Your task to perform on an android device: Open network settings Image 0: 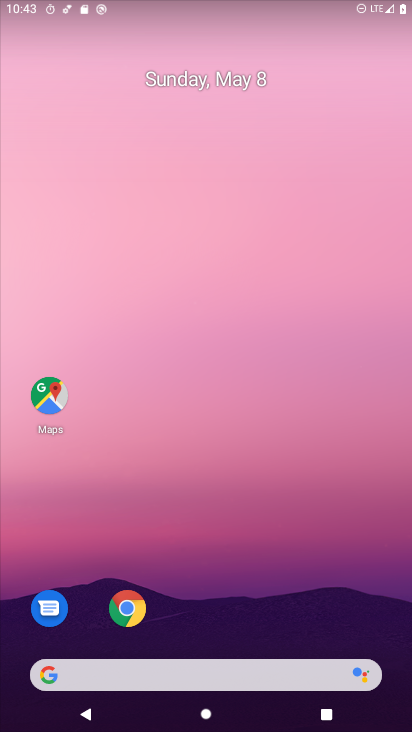
Step 0: drag from (176, 626) to (253, 157)
Your task to perform on an android device: Open network settings Image 1: 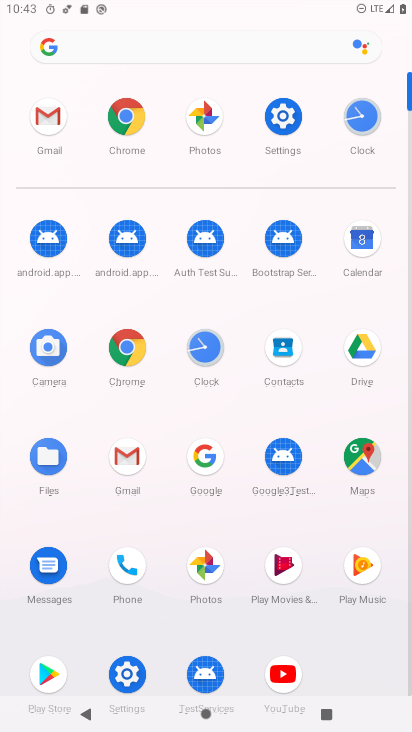
Step 1: click (273, 125)
Your task to perform on an android device: Open network settings Image 2: 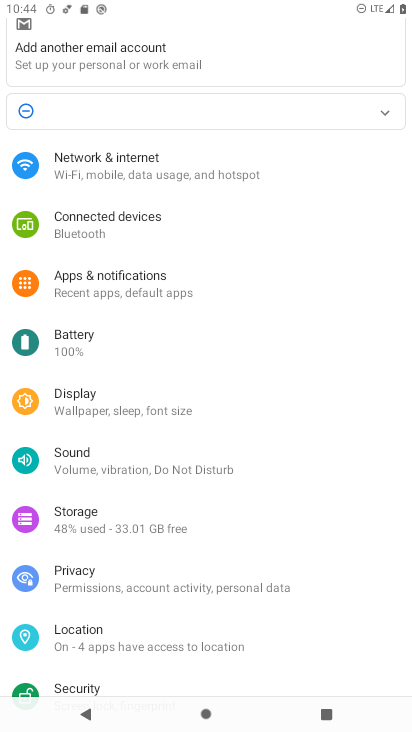
Step 2: click (162, 181)
Your task to perform on an android device: Open network settings Image 3: 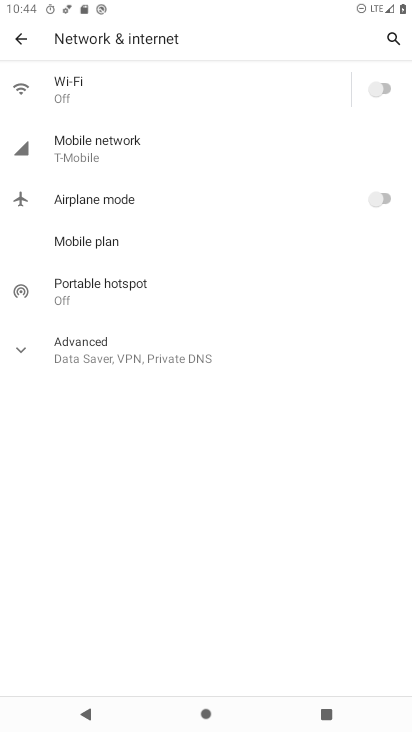
Step 3: task complete